Your task to perform on an android device: toggle improve location accuracy Image 0: 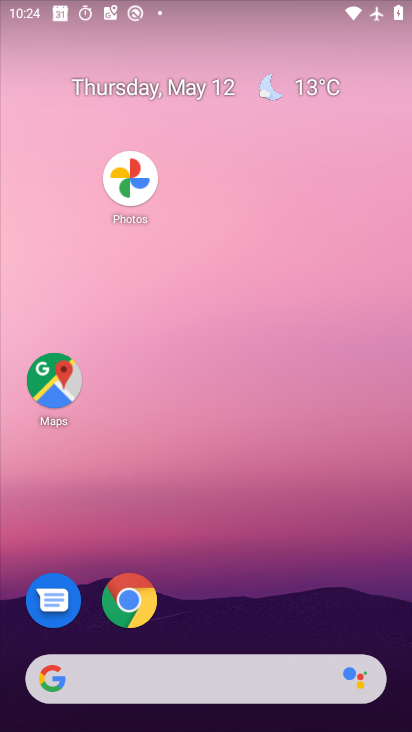
Step 0: drag from (390, 582) to (201, 156)
Your task to perform on an android device: toggle improve location accuracy Image 1: 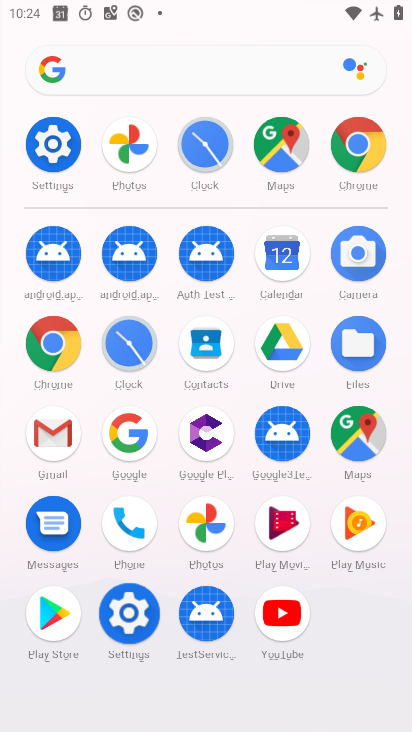
Step 1: click (49, 148)
Your task to perform on an android device: toggle improve location accuracy Image 2: 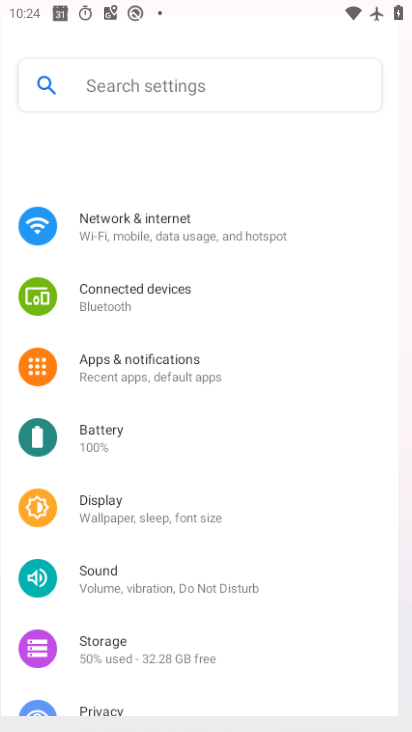
Step 2: click (49, 148)
Your task to perform on an android device: toggle improve location accuracy Image 3: 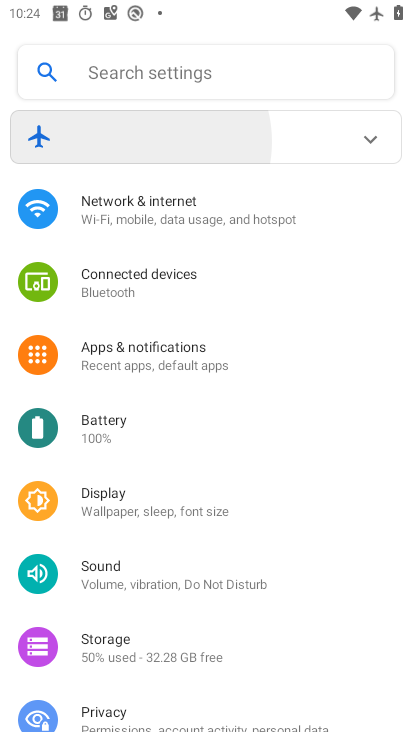
Step 3: click (49, 148)
Your task to perform on an android device: toggle improve location accuracy Image 4: 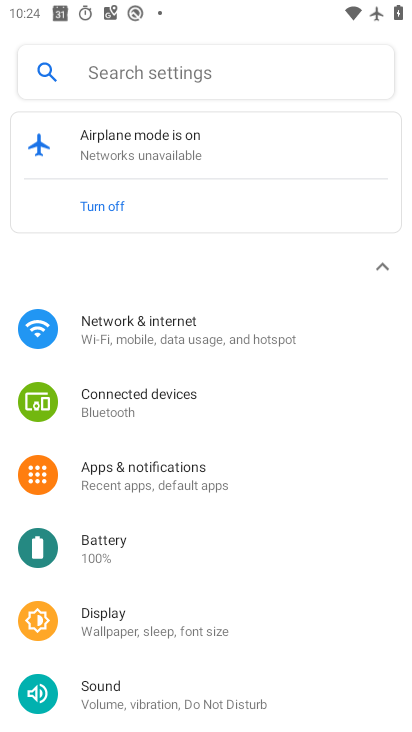
Step 4: click (49, 148)
Your task to perform on an android device: toggle improve location accuracy Image 5: 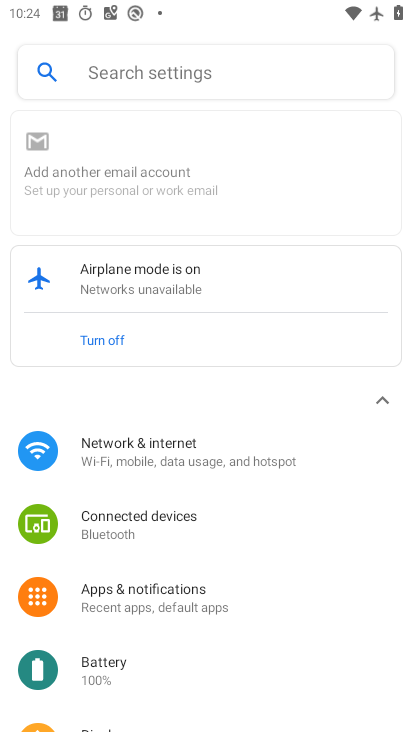
Step 5: click (49, 149)
Your task to perform on an android device: toggle improve location accuracy Image 6: 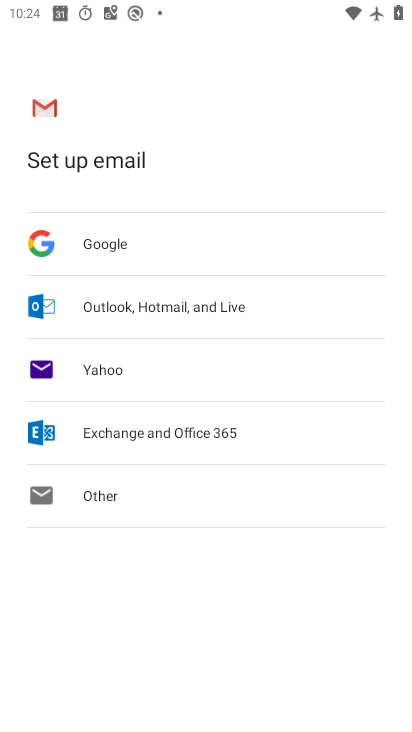
Step 6: drag from (124, 556) to (208, 123)
Your task to perform on an android device: toggle improve location accuracy Image 7: 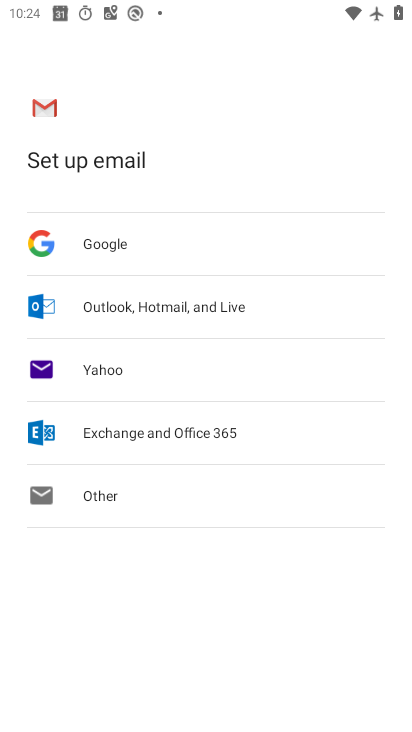
Step 7: press back button
Your task to perform on an android device: toggle improve location accuracy Image 8: 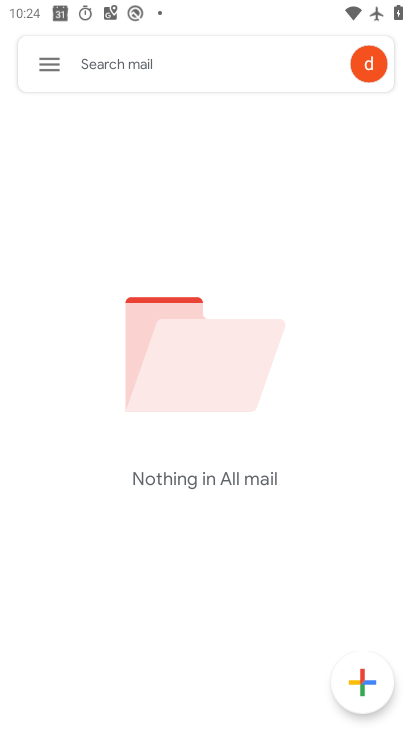
Step 8: press home button
Your task to perform on an android device: toggle improve location accuracy Image 9: 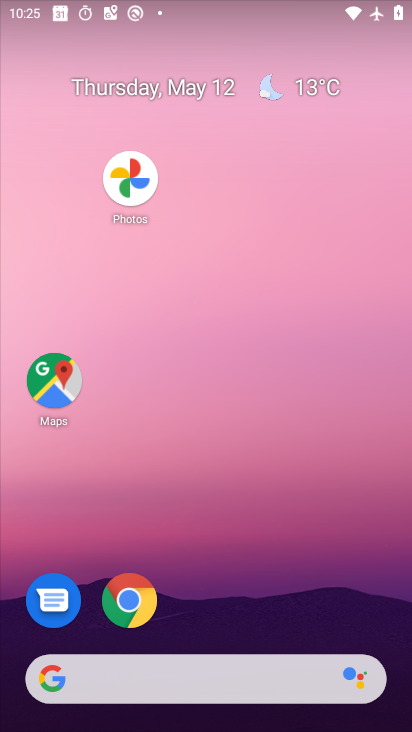
Step 9: drag from (228, 342) to (165, 116)
Your task to perform on an android device: toggle improve location accuracy Image 10: 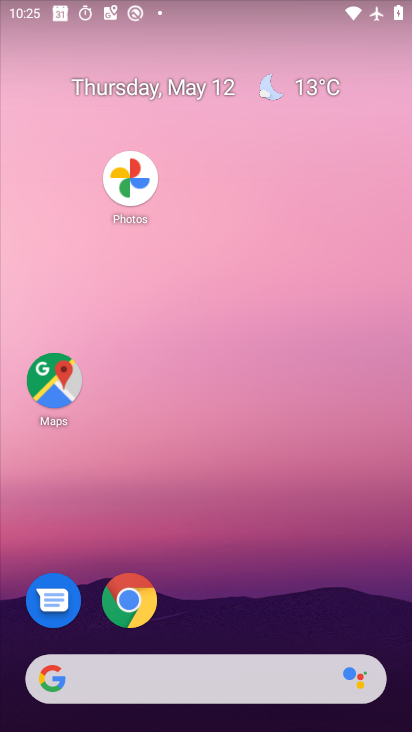
Step 10: drag from (205, 575) to (164, 32)
Your task to perform on an android device: toggle improve location accuracy Image 11: 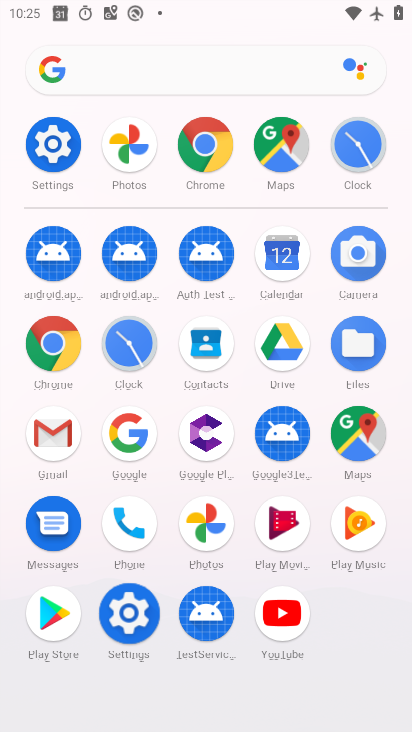
Step 11: click (52, 141)
Your task to perform on an android device: toggle improve location accuracy Image 12: 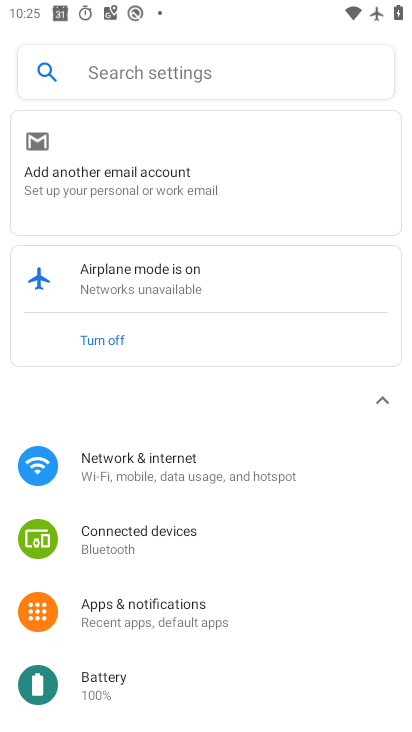
Step 12: drag from (166, 601) to (167, 0)
Your task to perform on an android device: toggle improve location accuracy Image 13: 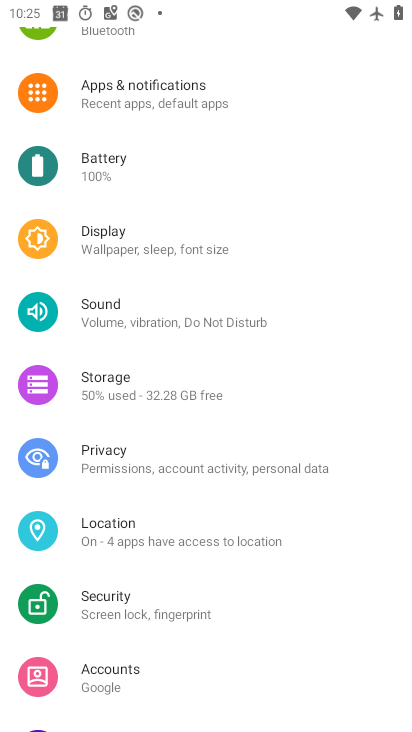
Step 13: drag from (172, 251) to (137, 274)
Your task to perform on an android device: toggle improve location accuracy Image 14: 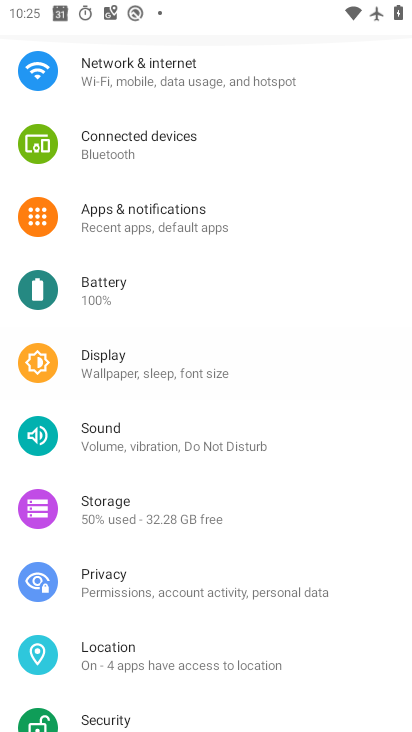
Step 14: drag from (159, 508) to (185, 192)
Your task to perform on an android device: toggle improve location accuracy Image 15: 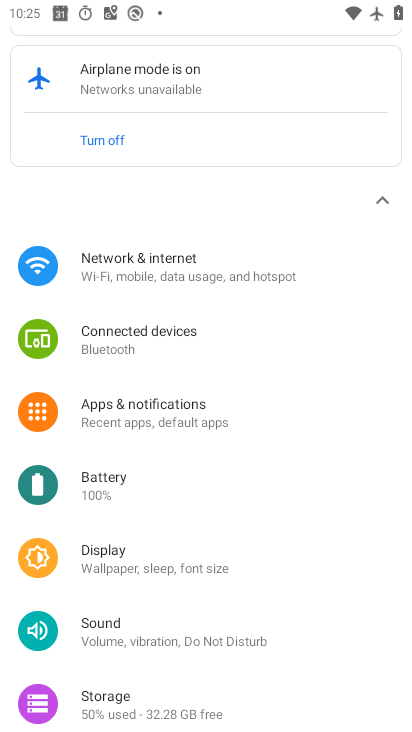
Step 15: drag from (160, 506) to (60, 50)
Your task to perform on an android device: toggle improve location accuracy Image 16: 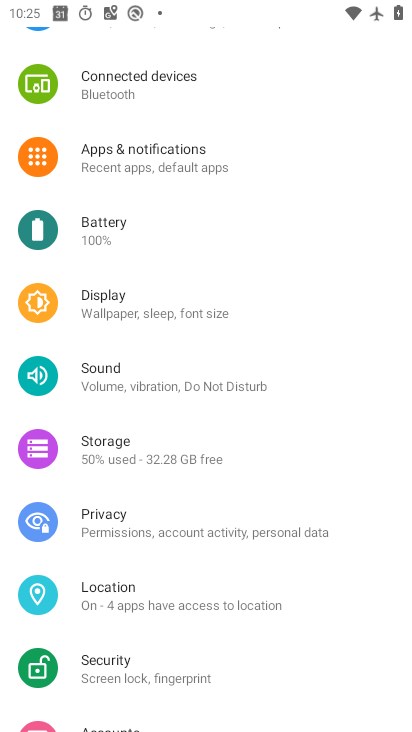
Step 16: click (144, 599)
Your task to perform on an android device: toggle improve location accuracy Image 17: 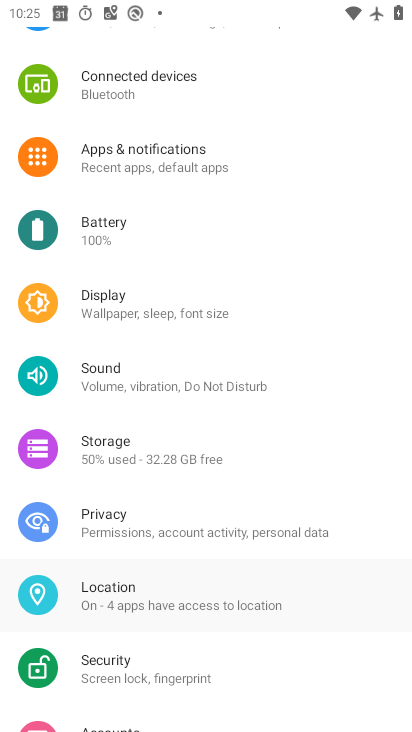
Step 17: click (145, 597)
Your task to perform on an android device: toggle improve location accuracy Image 18: 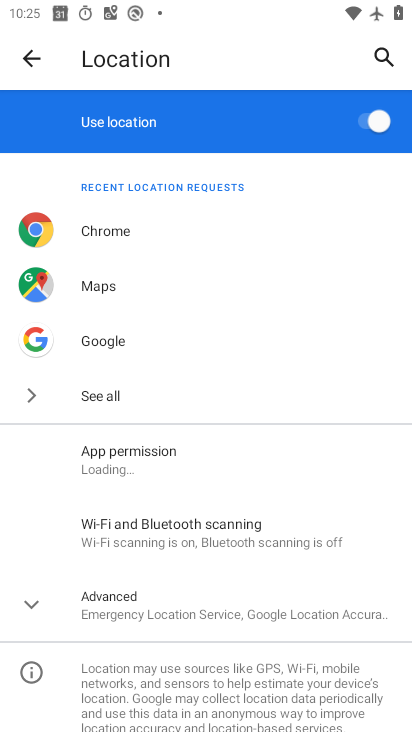
Step 18: click (104, 604)
Your task to perform on an android device: toggle improve location accuracy Image 19: 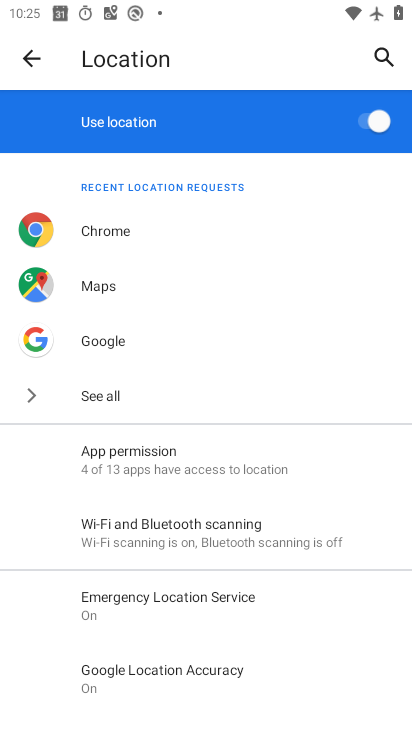
Step 19: drag from (149, 336) to (147, 122)
Your task to perform on an android device: toggle improve location accuracy Image 20: 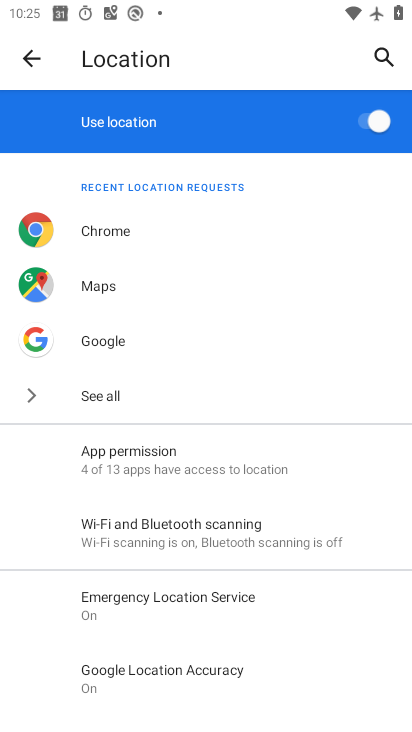
Step 20: click (165, 672)
Your task to perform on an android device: toggle improve location accuracy Image 21: 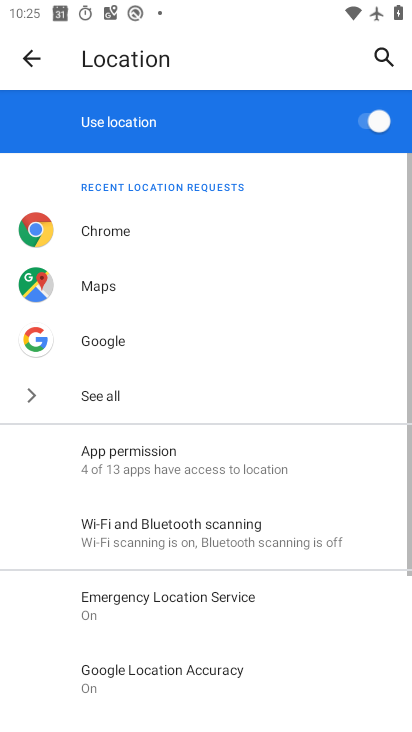
Step 21: click (104, 665)
Your task to perform on an android device: toggle improve location accuracy Image 22: 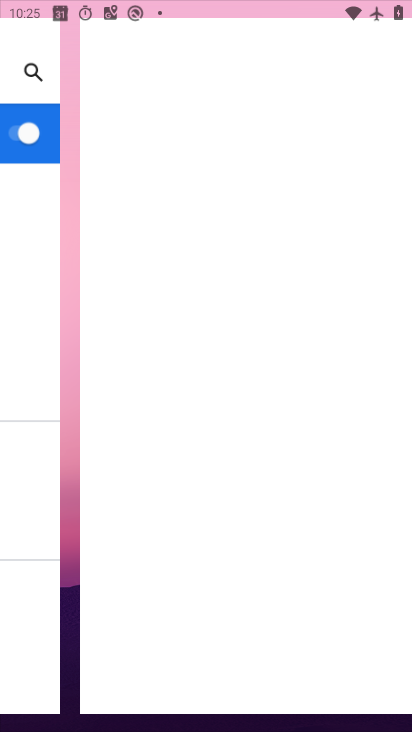
Step 22: click (113, 663)
Your task to perform on an android device: toggle improve location accuracy Image 23: 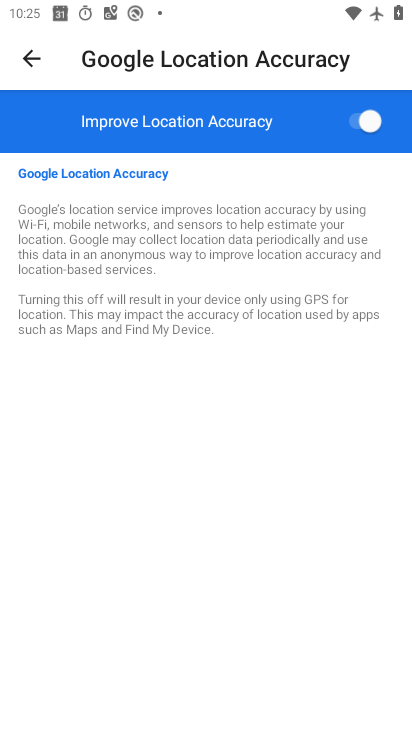
Step 23: click (134, 664)
Your task to perform on an android device: toggle improve location accuracy Image 24: 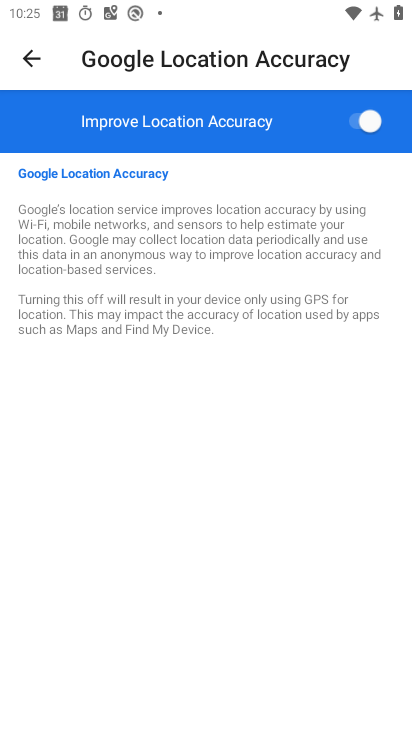
Step 24: click (139, 654)
Your task to perform on an android device: toggle improve location accuracy Image 25: 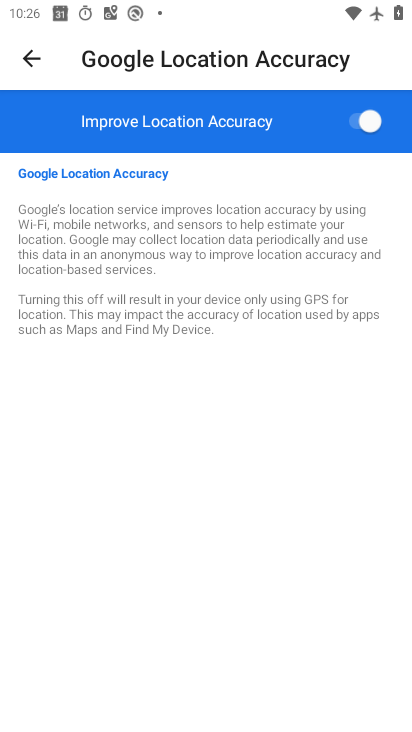
Step 25: click (133, 657)
Your task to perform on an android device: toggle improve location accuracy Image 26: 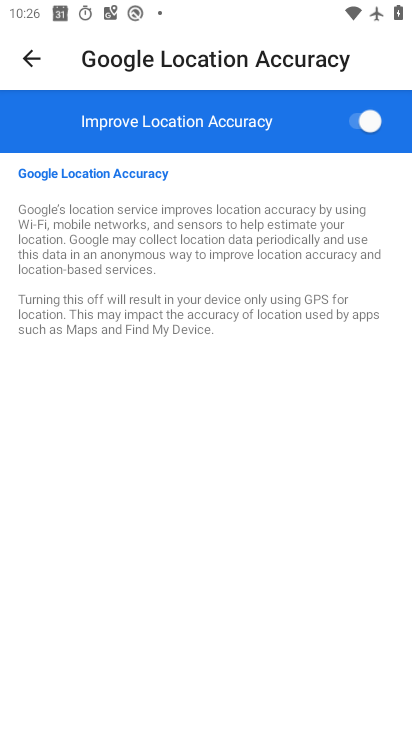
Step 26: click (371, 119)
Your task to perform on an android device: toggle improve location accuracy Image 27: 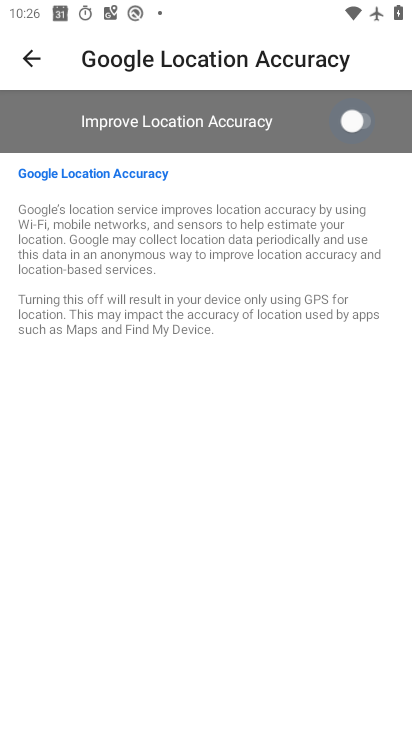
Step 27: click (367, 127)
Your task to perform on an android device: toggle improve location accuracy Image 28: 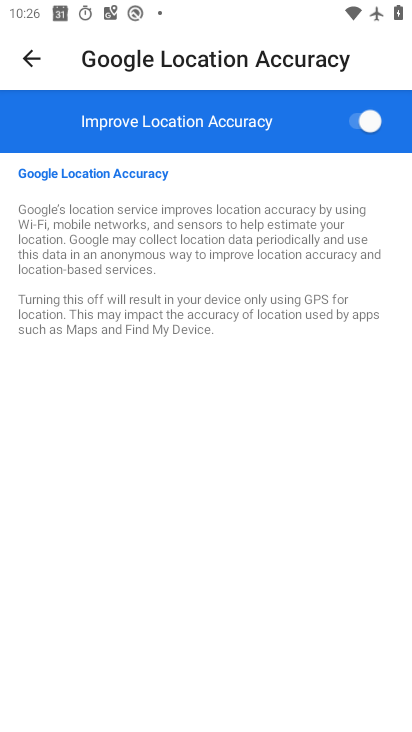
Step 28: task complete